Your task to perform on an android device: See recent photos Image 0: 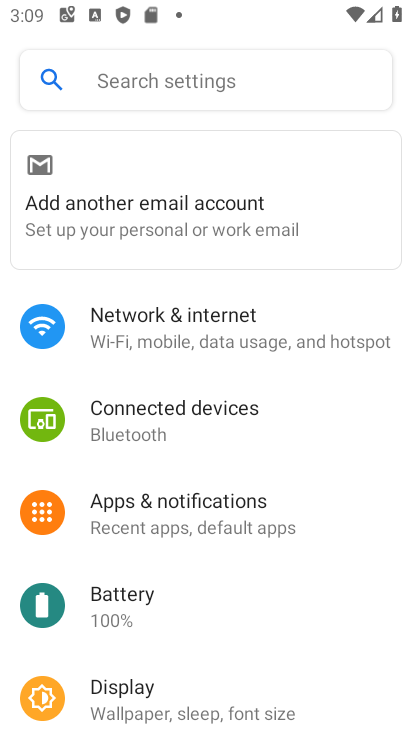
Step 0: press back button
Your task to perform on an android device: See recent photos Image 1: 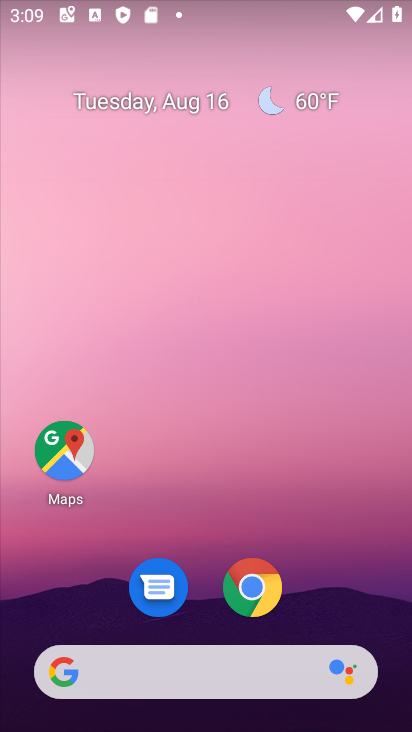
Step 1: drag from (208, 617) to (213, 95)
Your task to perform on an android device: See recent photos Image 2: 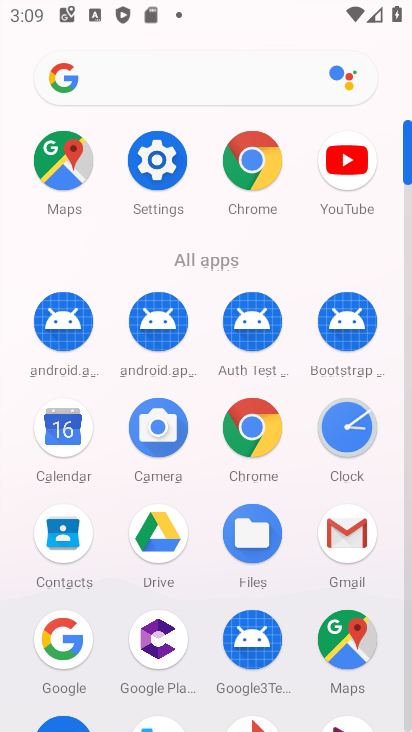
Step 2: drag from (199, 673) to (247, 268)
Your task to perform on an android device: See recent photos Image 3: 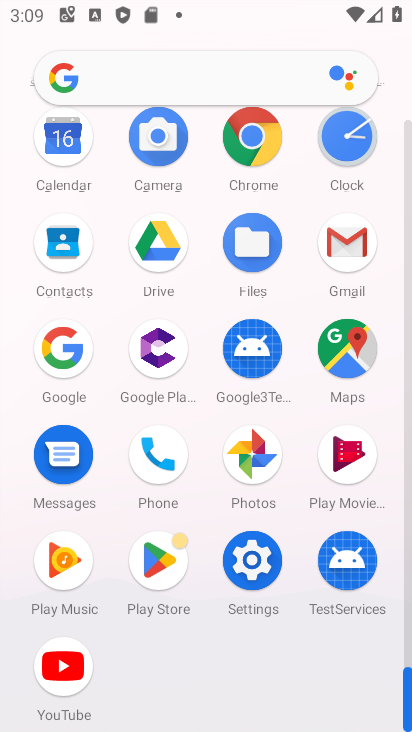
Step 3: click (254, 451)
Your task to perform on an android device: See recent photos Image 4: 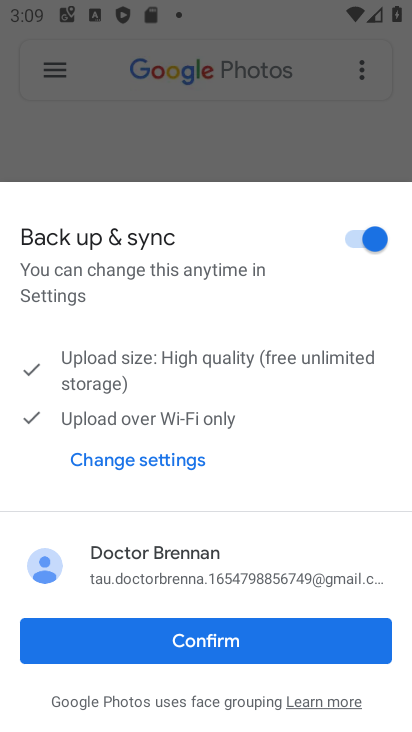
Step 4: click (212, 642)
Your task to perform on an android device: See recent photos Image 5: 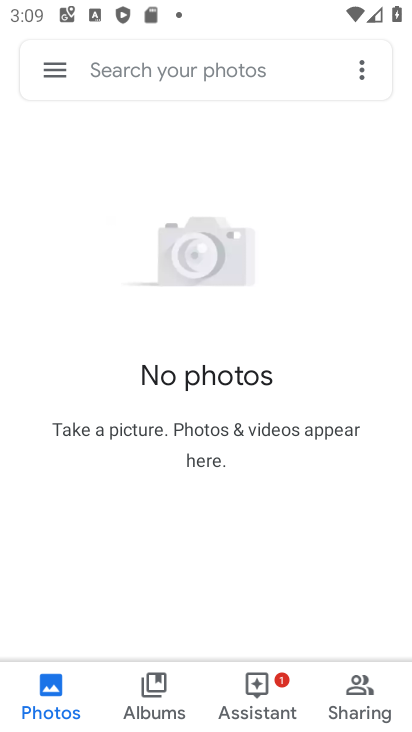
Step 5: task complete